Your task to perform on an android device: open app "Reddit" (install if not already installed) Image 0: 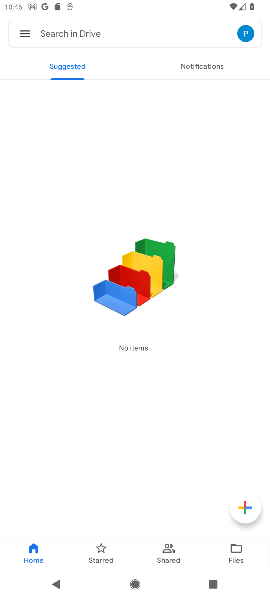
Step 0: press home button
Your task to perform on an android device: open app "Reddit" (install if not already installed) Image 1: 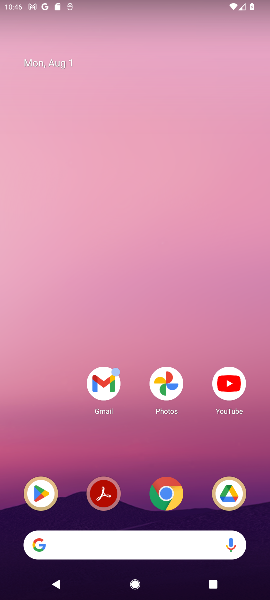
Step 1: click (46, 503)
Your task to perform on an android device: open app "Reddit" (install if not already installed) Image 2: 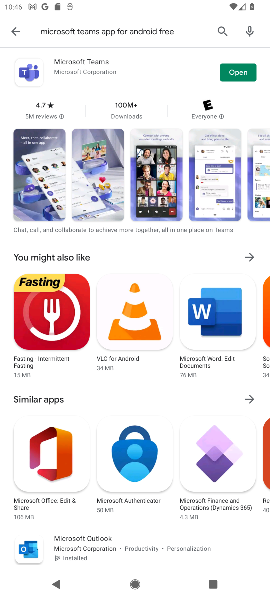
Step 2: click (221, 39)
Your task to perform on an android device: open app "Reddit" (install if not already installed) Image 3: 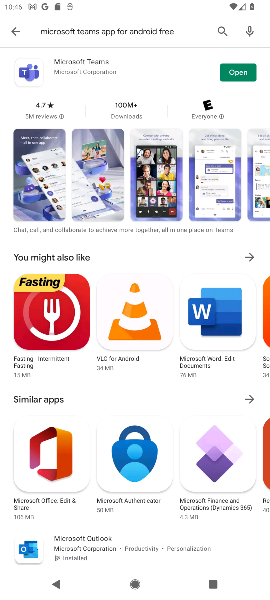
Step 3: click (221, 39)
Your task to perform on an android device: open app "Reddit" (install if not already installed) Image 4: 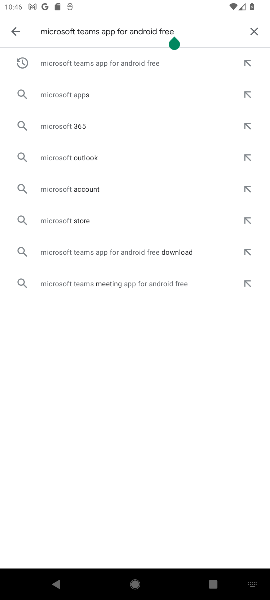
Step 4: click (249, 32)
Your task to perform on an android device: open app "Reddit" (install if not already installed) Image 5: 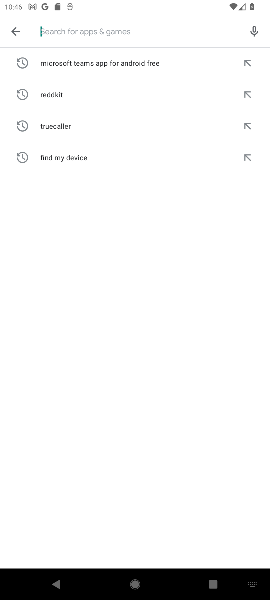
Step 5: type "reddit"
Your task to perform on an android device: open app "Reddit" (install if not already installed) Image 6: 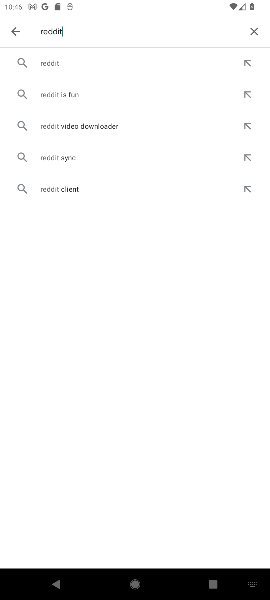
Step 6: click (67, 67)
Your task to perform on an android device: open app "Reddit" (install if not already installed) Image 7: 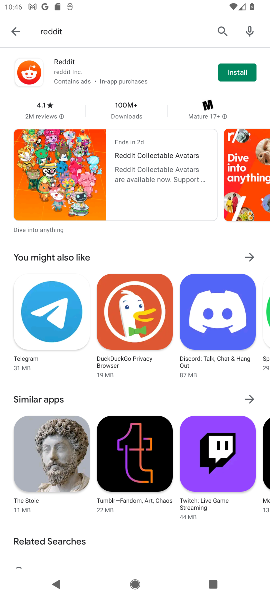
Step 7: click (235, 70)
Your task to perform on an android device: open app "Reddit" (install if not already installed) Image 8: 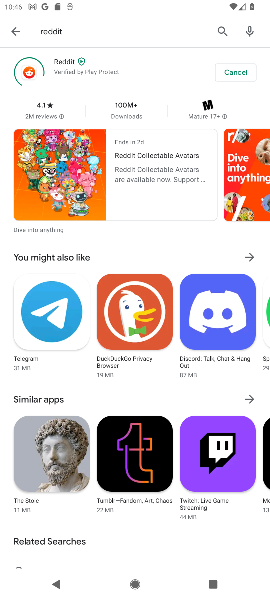
Step 8: task complete